Your task to perform on an android device: turn on data saver in the chrome app Image 0: 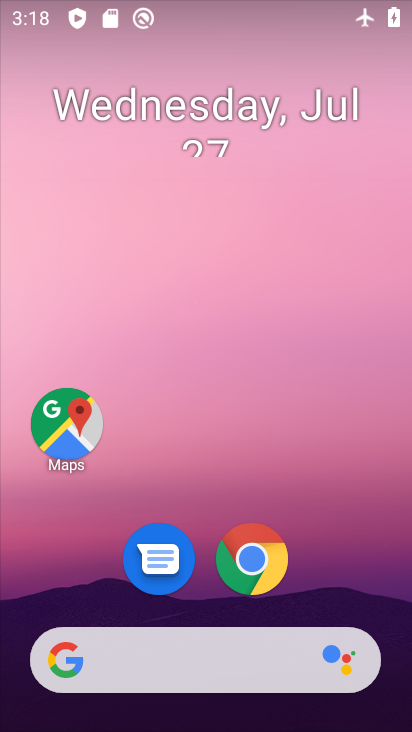
Step 0: click (248, 565)
Your task to perform on an android device: turn on data saver in the chrome app Image 1: 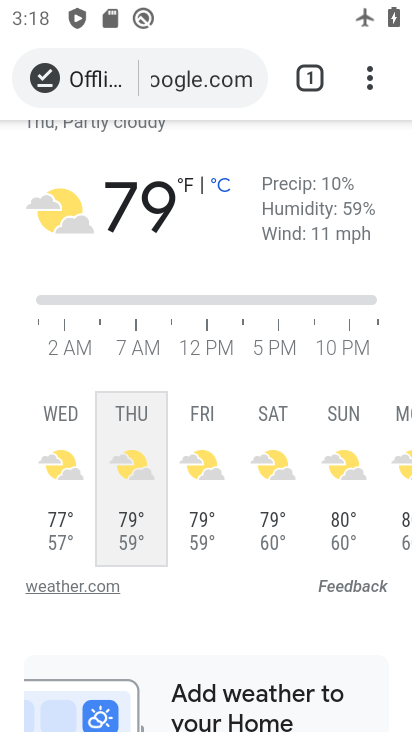
Step 1: drag from (366, 78) to (120, 607)
Your task to perform on an android device: turn on data saver in the chrome app Image 2: 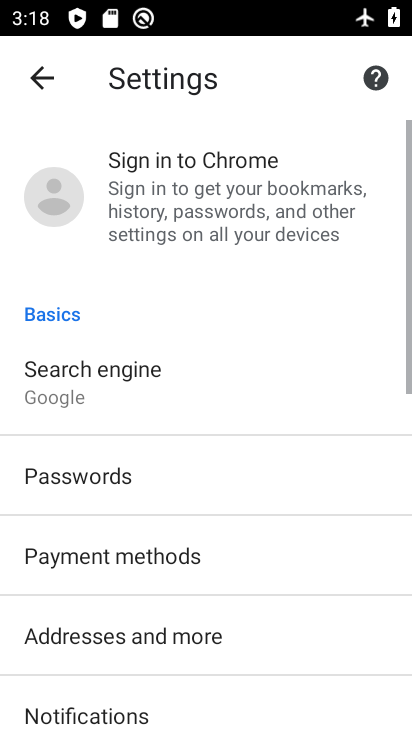
Step 2: drag from (135, 612) to (298, 6)
Your task to perform on an android device: turn on data saver in the chrome app Image 3: 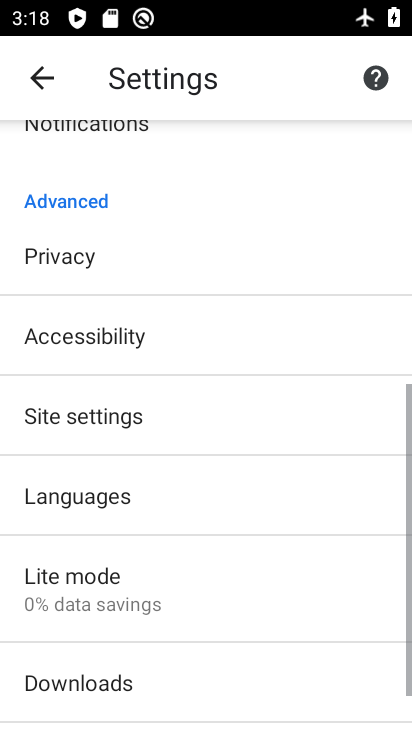
Step 3: click (110, 603)
Your task to perform on an android device: turn on data saver in the chrome app Image 4: 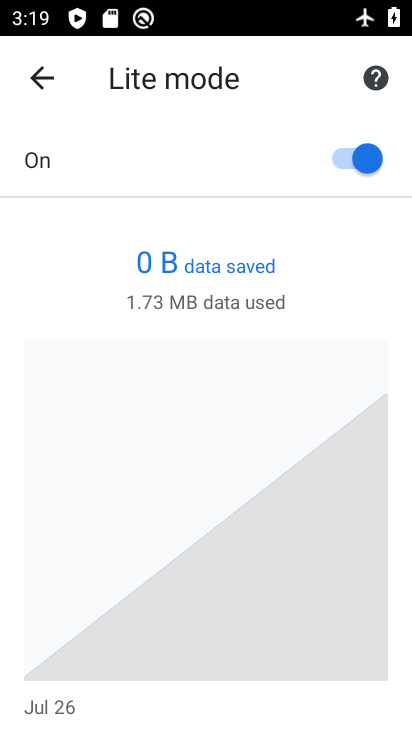
Step 4: task complete